Your task to perform on an android device: read, delete, or share a saved page in the chrome app Image 0: 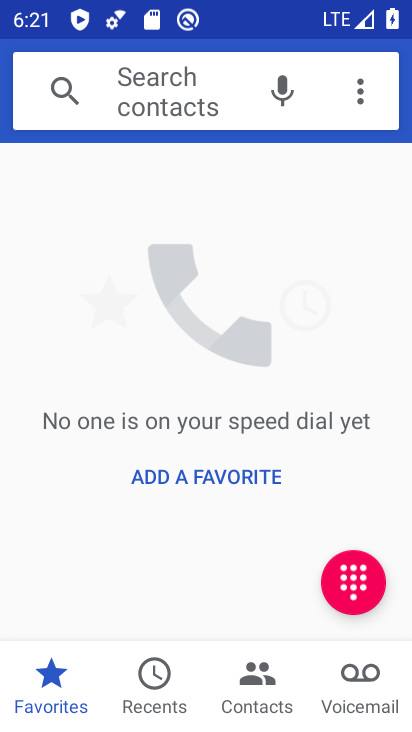
Step 0: press home button
Your task to perform on an android device: read, delete, or share a saved page in the chrome app Image 1: 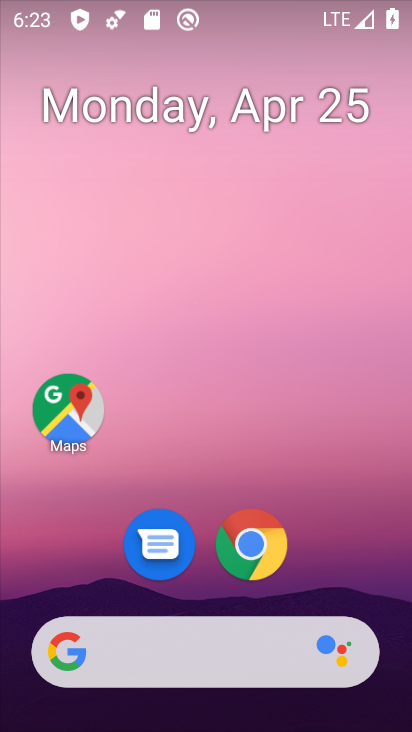
Step 1: click (258, 533)
Your task to perform on an android device: read, delete, or share a saved page in the chrome app Image 2: 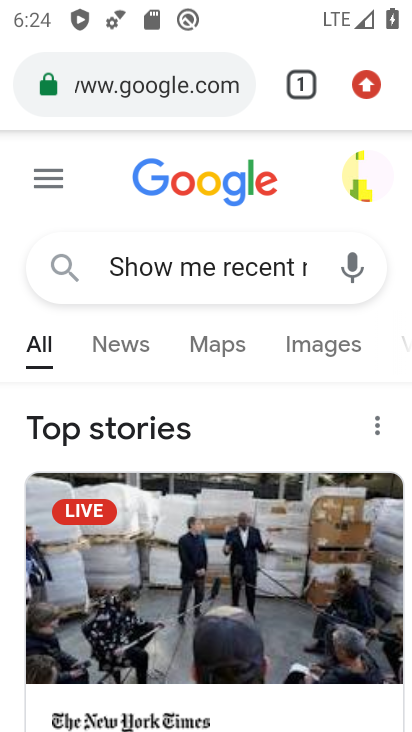
Step 2: drag from (368, 83) to (187, 526)
Your task to perform on an android device: read, delete, or share a saved page in the chrome app Image 3: 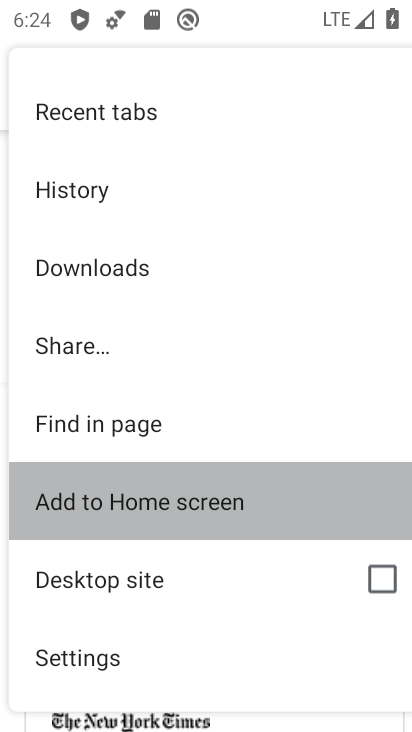
Step 3: click (210, 577)
Your task to perform on an android device: read, delete, or share a saved page in the chrome app Image 4: 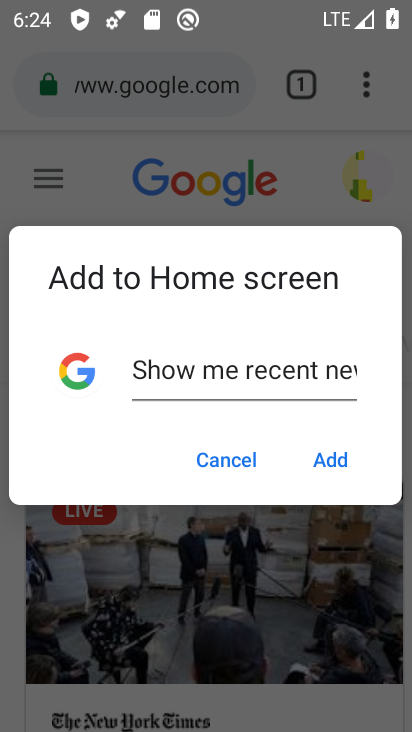
Step 4: click (226, 438)
Your task to perform on an android device: read, delete, or share a saved page in the chrome app Image 5: 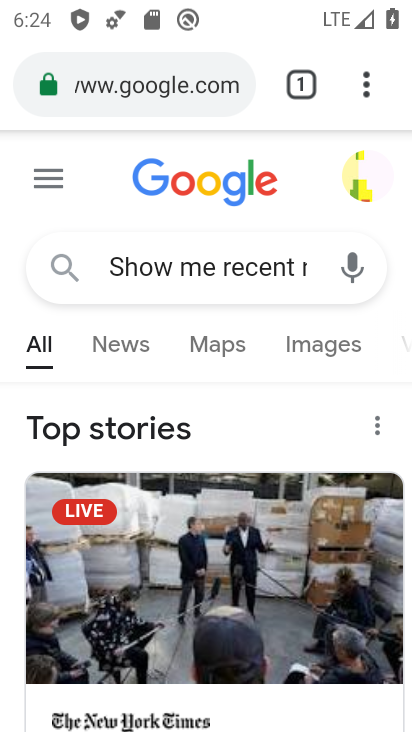
Step 5: drag from (359, 89) to (192, 227)
Your task to perform on an android device: read, delete, or share a saved page in the chrome app Image 6: 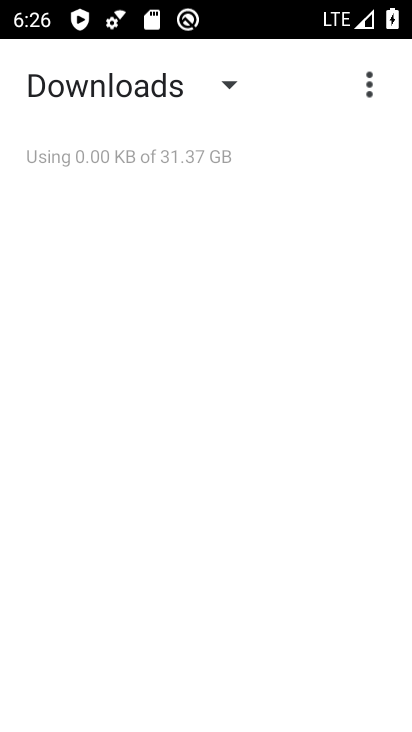
Step 6: click (251, 78)
Your task to perform on an android device: read, delete, or share a saved page in the chrome app Image 7: 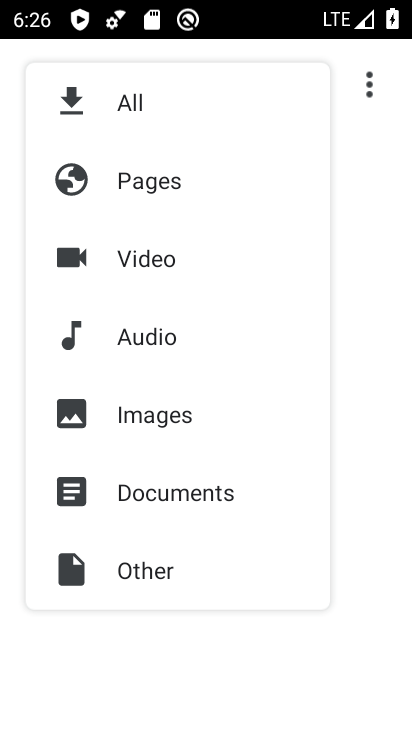
Step 7: click (215, 80)
Your task to perform on an android device: read, delete, or share a saved page in the chrome app Image 8: 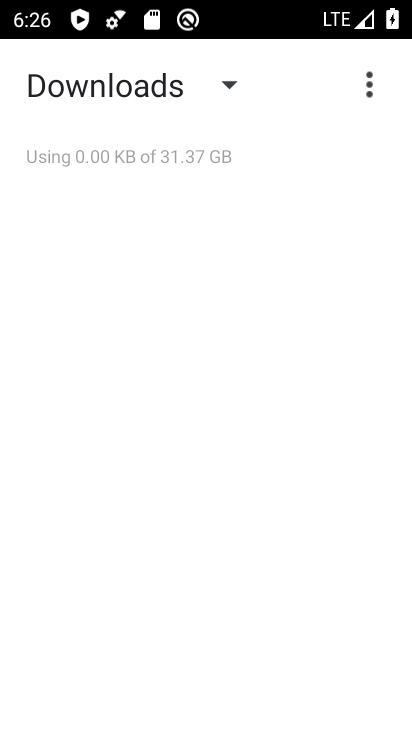
Step 8: click (228, 85)
Your task to perform on an android device: read, delete, or share a saved page in the chrome app Image 9: 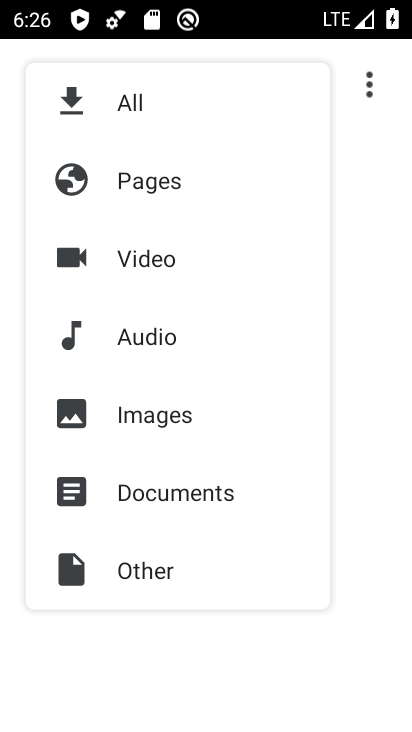
Step 9: task complete